Your task to perform on an android device: turn smart compose on in the gmail app Image 0: 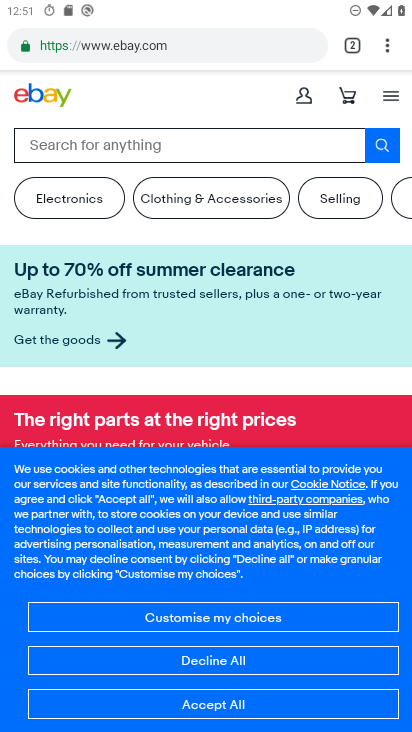
Step 0: drag from (384, 42) to (360, 296)
Your task to perform on an android device: turn smart compose on in the gmail app Image 1: 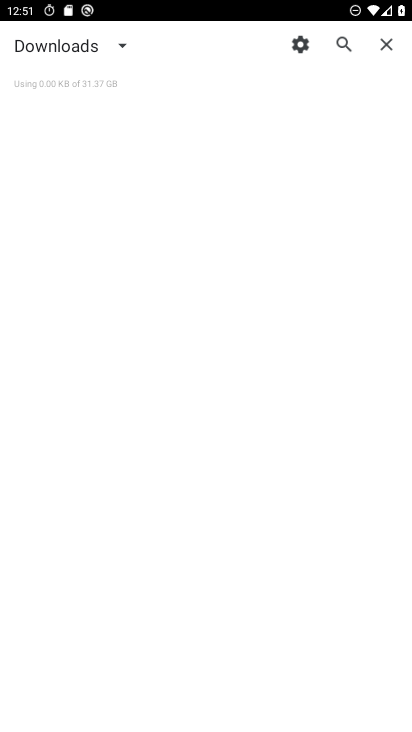
Step 1: press home button
Your task to perform on an android device: turn smart compose on in the gmail app Image 2: 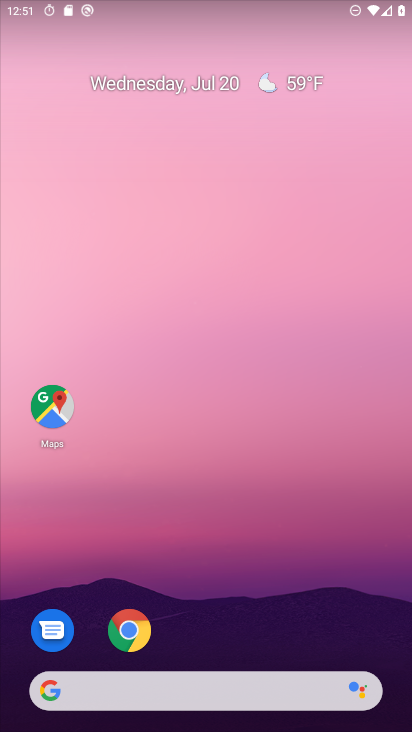
Step 2: drag from (228, 460) to (304, 11)
Your task to perform on an android device: turn smart compose on in the gmail app Image 3: 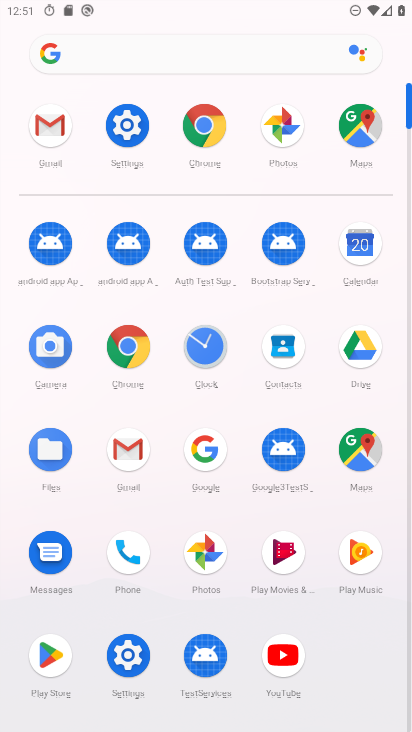
Step 3: click (131, 460)
Your task to perform on an android device: turn smart compose on in the gmail app Image 4: 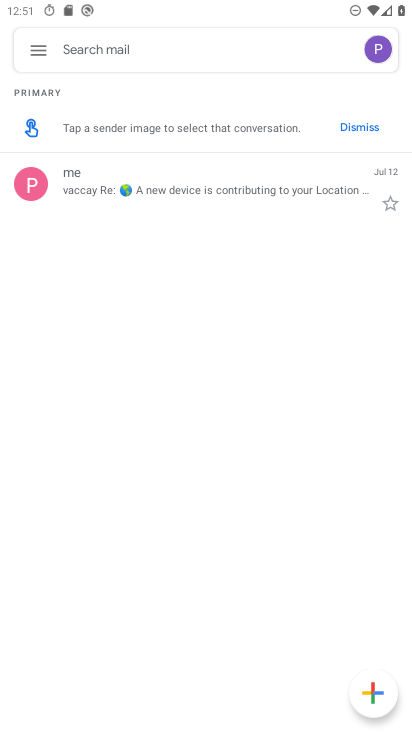
Step 4: click (39, 49)
Your task to perform on an android device: turn smart compose on in the gmail app Image 5: 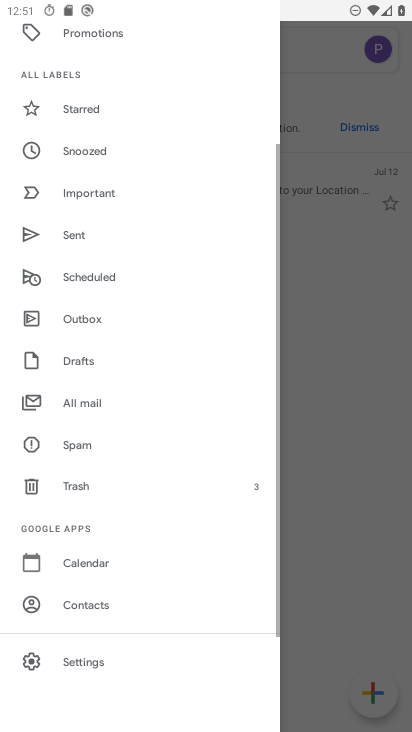
Step 5: click (95, 663)
Your task to perform on an android device: turn smart compose on in the gmail app Image 6: 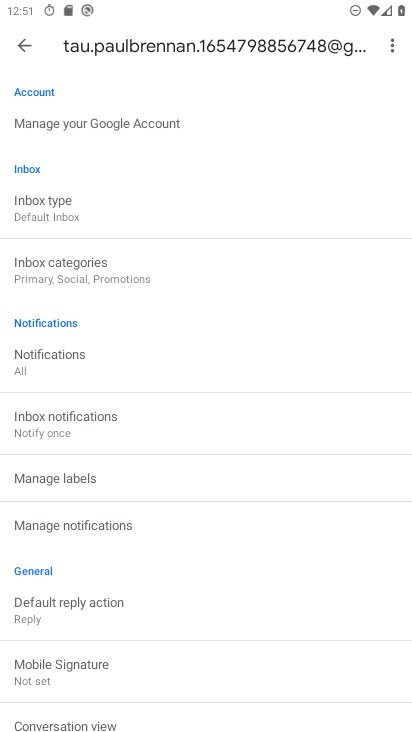
Step 6: task complete